Your task to perform on an android device: turn off notifications in google photos Image 0: 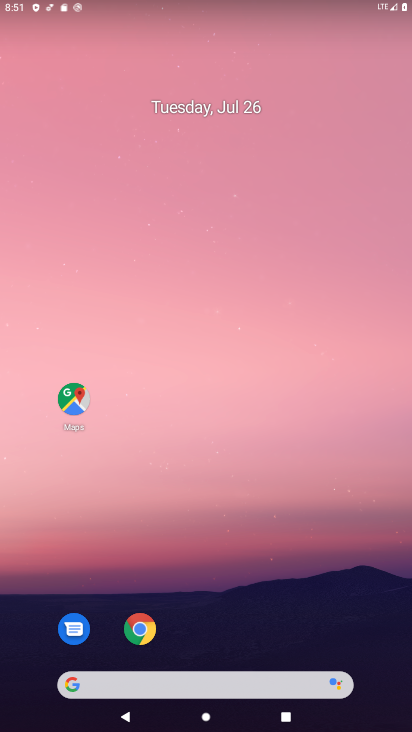
Step 0: drag from (181, 651) to (204, 66)
Your task to perform on an android device: turn off notifications in google photos Image 1: 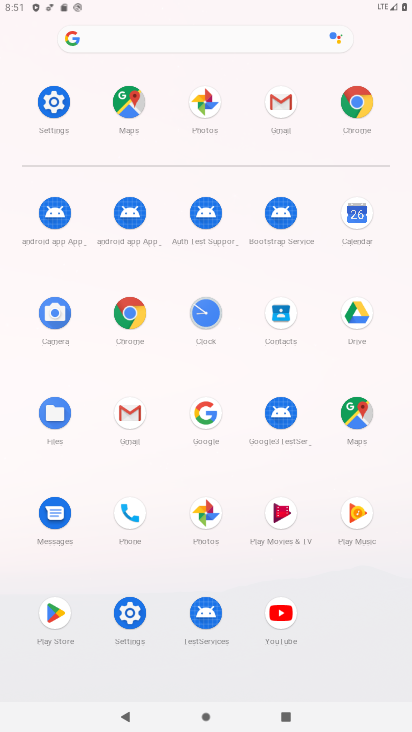
Step 1: click (206, 517)
Your task to perform on an android device: turn off notifications in google photos Image 2: 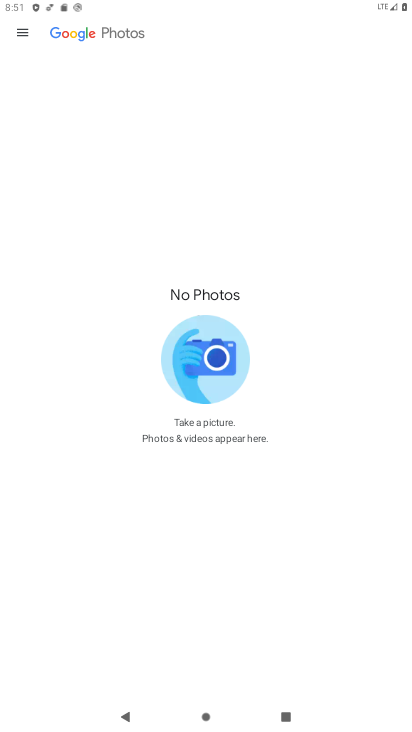
Step 2: click (23, 23)
Your task to perform on an android device: turn off notifications in google photos Image 3: 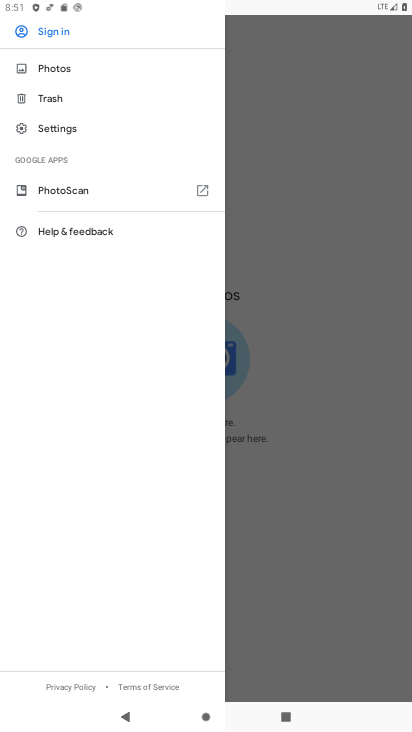
Step 3: click (54, 126)
Your task to perform on an android device: turn off notifications in google photos Image 4: 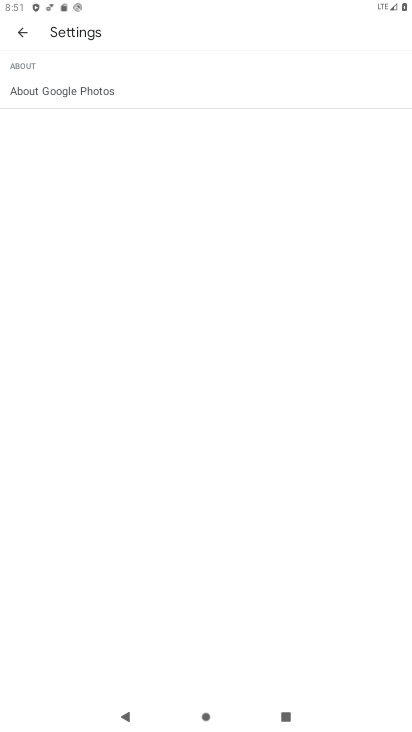
Step 4: task complete